Your task to perform on an android device: turn on location history Image 0: 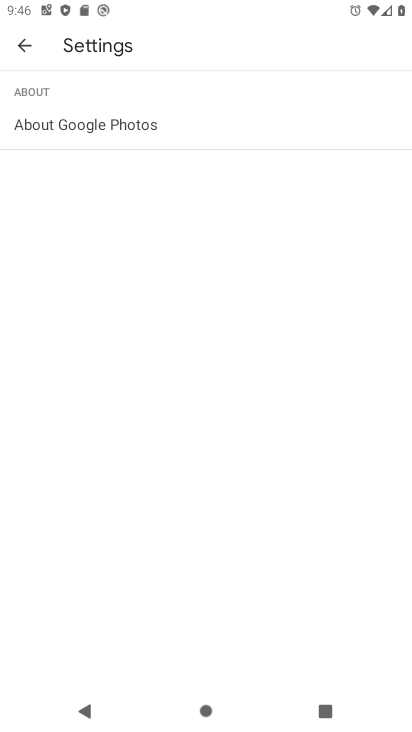
Step 0: press back button
Your task to perform on an android device: turn on location history Image 1: 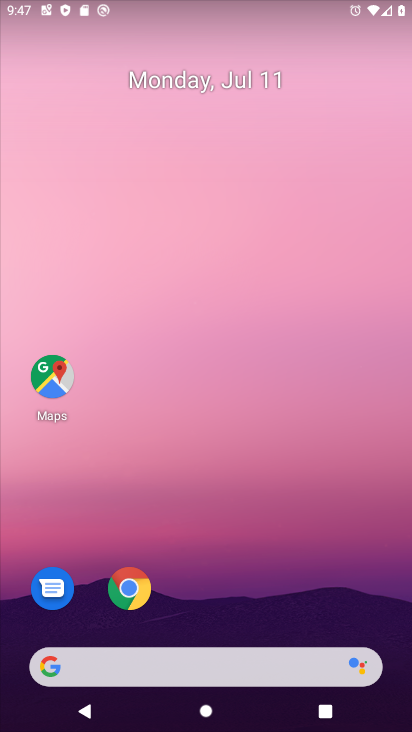
Step 1: drag from (203, 660) to (294, 0)
Your task to perform on an android device: turn on location history Image 2: 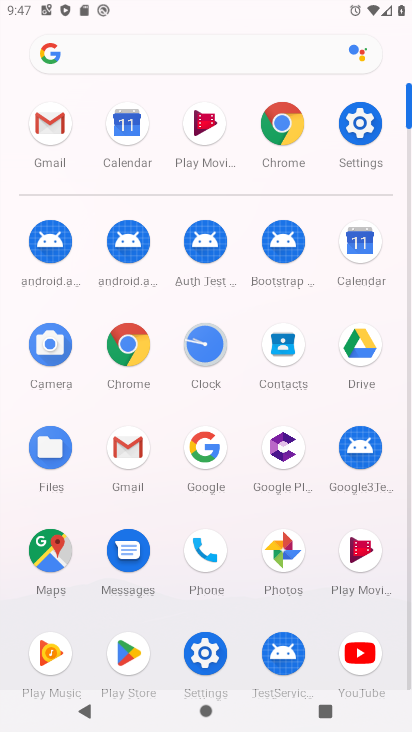
Step 2: click (362, 109)
Your task to perform on an android device: turn on location history Image 3: 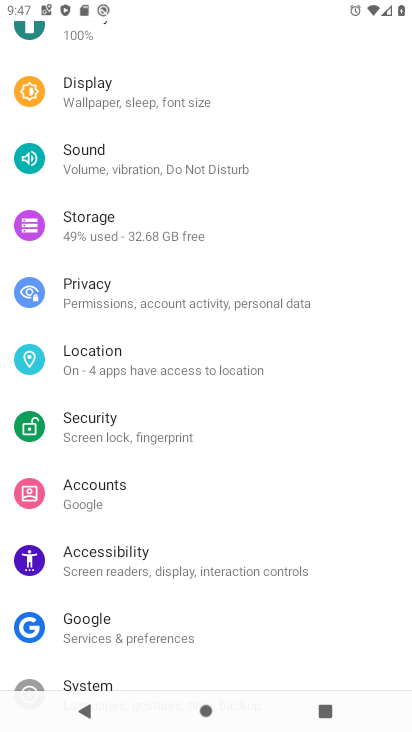
Step 3: click (80, 364)
Your task to perform on an android device: turn on location history Image 4: 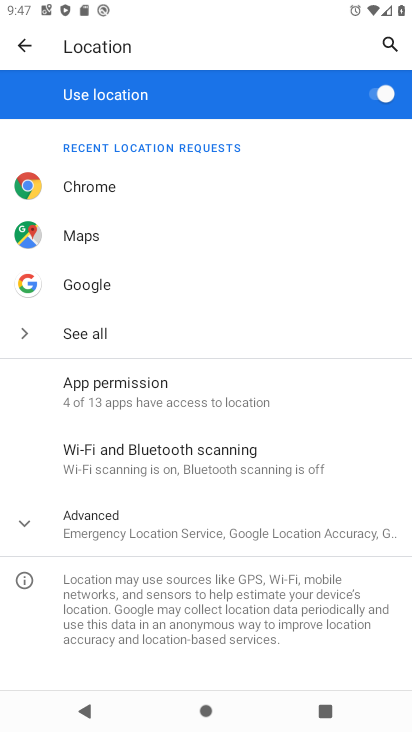
Step 4: click (101, 524)
Your task to perform on an android device: turn on location history Image 5: 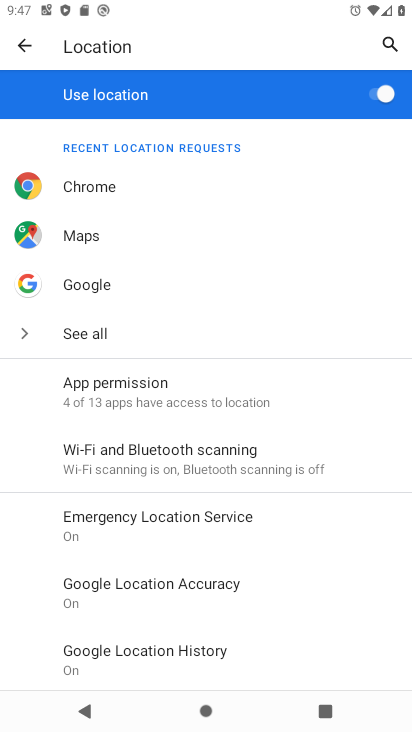
Step 5: click (136, 661)
Your task to perform on an android device: turn on location history Image 6: 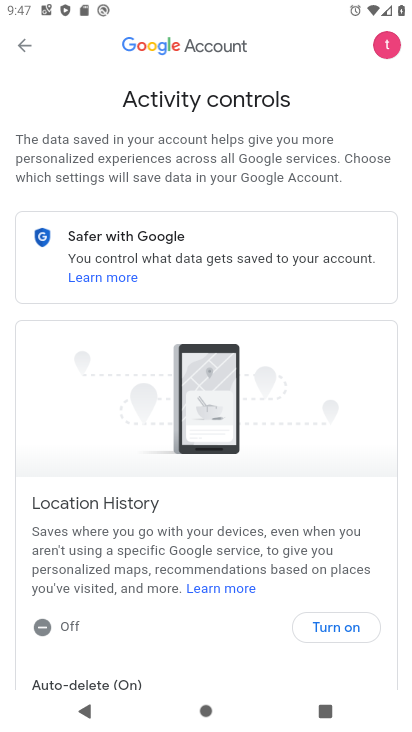
Step 6: click (336, 631)
Your task to perform on an android device: turn on location history Image 7: 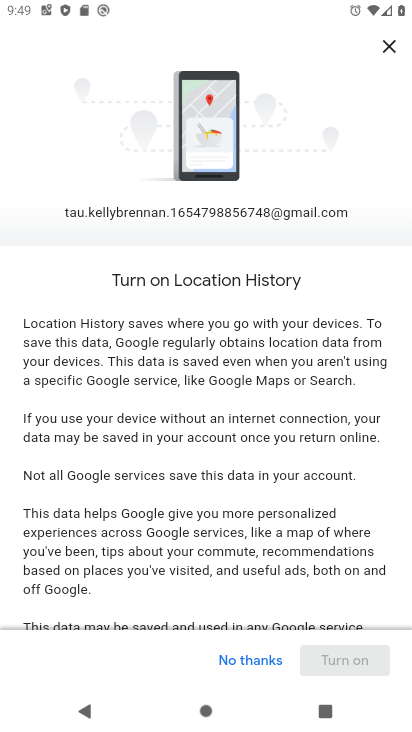
Step 7: drag from (227, 583) to (299, 2)
Your task to perform on an android device: turn on location history Image 8: 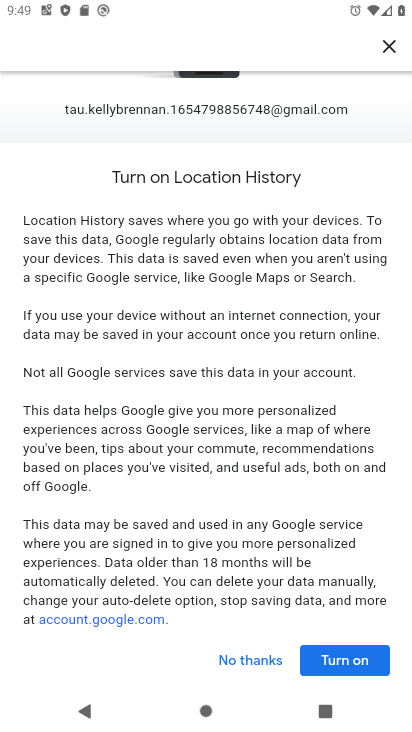
Step 8: click (340, 657)
Your task to perform on an android device: turn on location history Image 9: 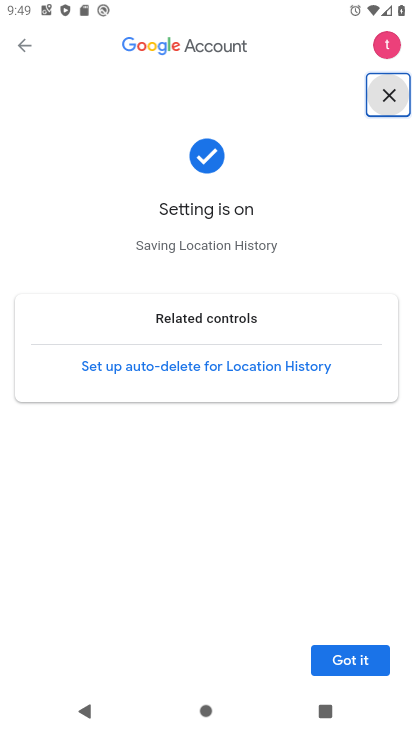
Step 9: click (322, 650)
Your task to perform on an android device: turn on location history Image 10: 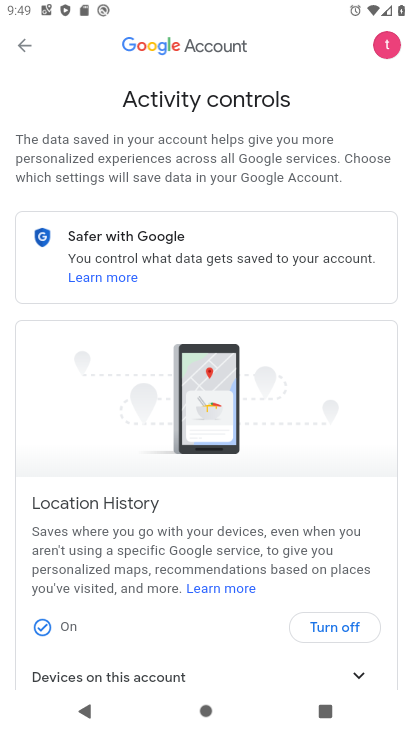
Step 10: task complete